Your task to perform on an android device: Go to settings Image 0: 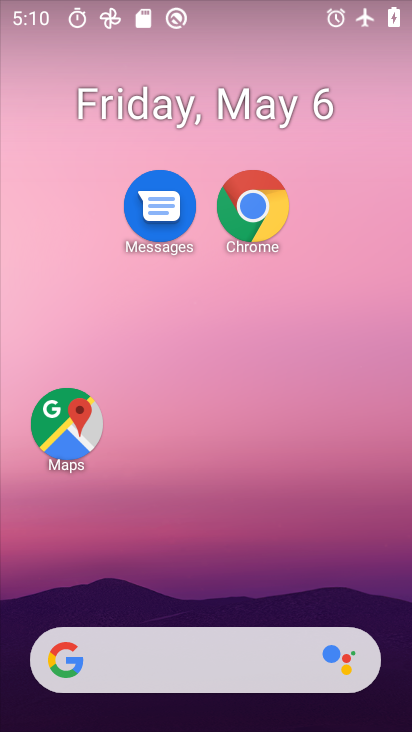
Step 0: drag from (182, 621) to (173, 311)
Your task to perform on an android device: Go to settings Image 1: 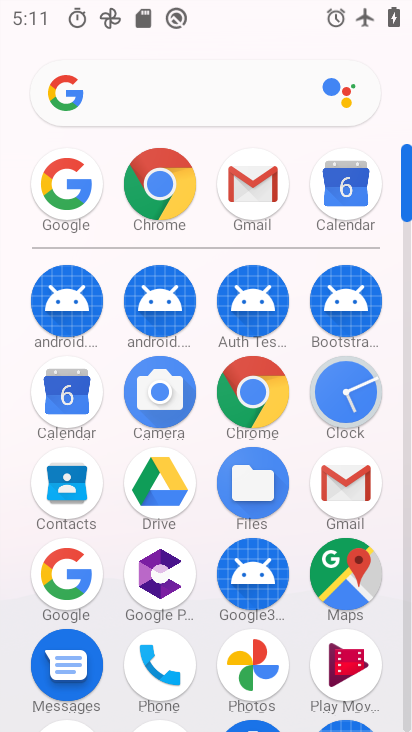
Step 1: drag from (209, 674) to (184, 259)
Your task to perform on an android device: Go to settings Image 2: 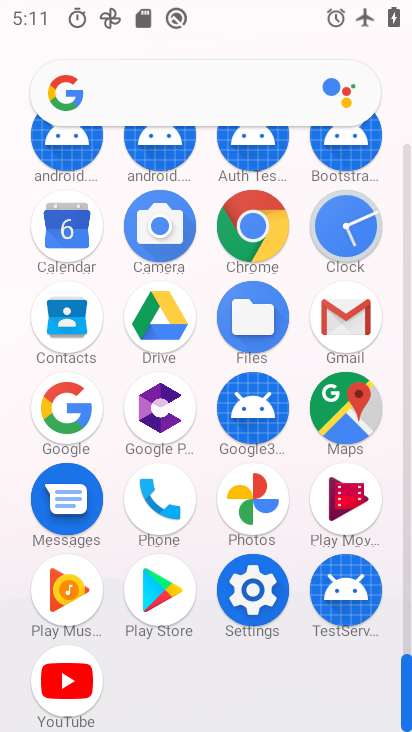
Step 2: click (254, 600)
Your task to perform on an android device: Go to settings Image 3: 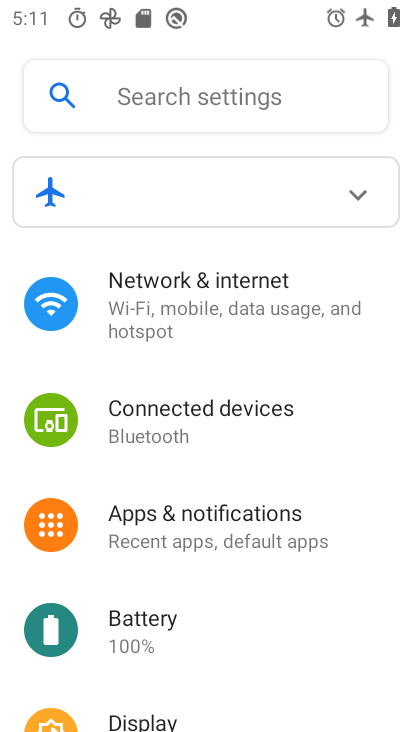
Step 3: task complete